Your task to perform on an android device: turn off location Image 0: 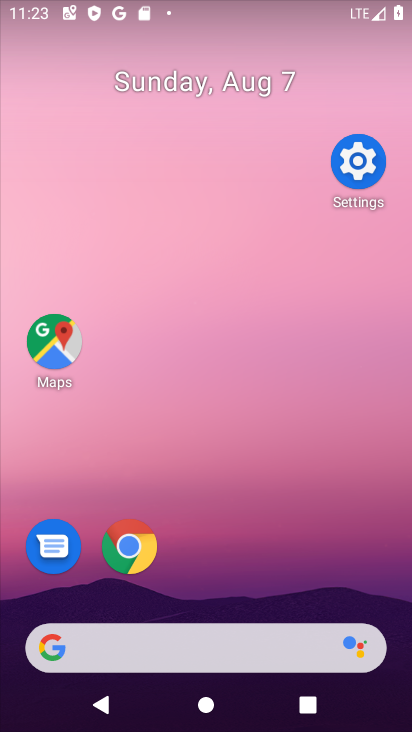
Step 0: drag from (192, 320) to (290, 316)
Your task to perform on an android device: turn off location Image 1: 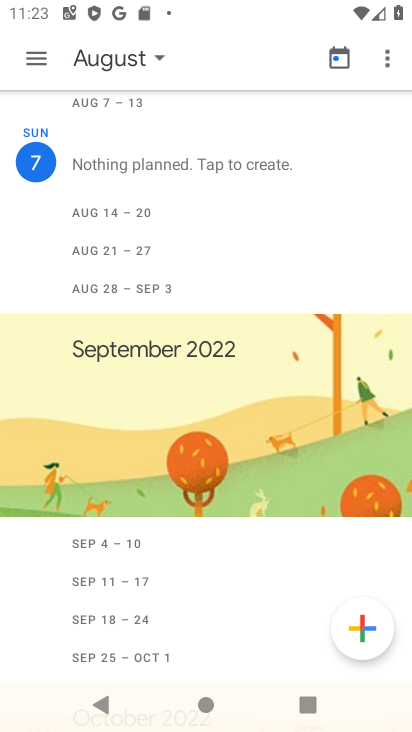
Step 1: press back button
Your task to perform on an android device: turn off location Image 2: 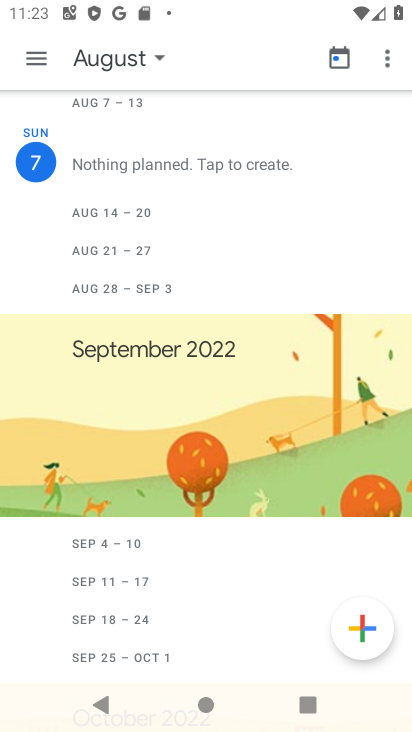
Step 2: press back button
Your task to perform on an android device: turn off location Image 3: 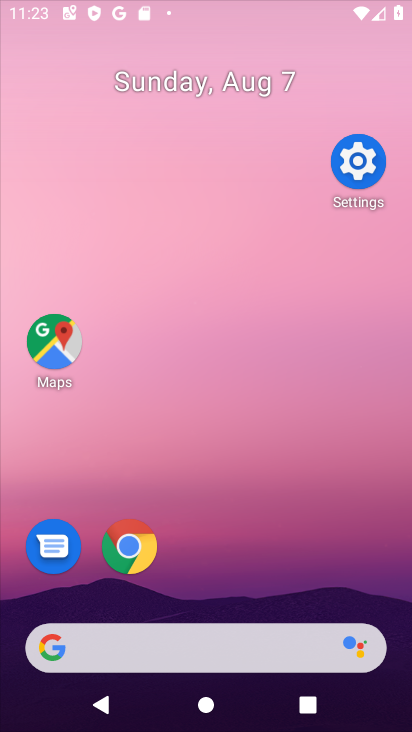
Step 3: press back button
Your task to perform on an android device: turn off location Image 4: 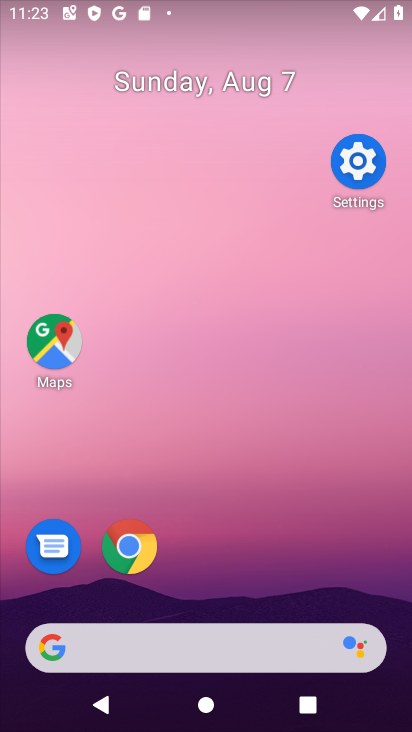
Step 4: press back button
Your task to perform on an android device: turn off location Image 5: 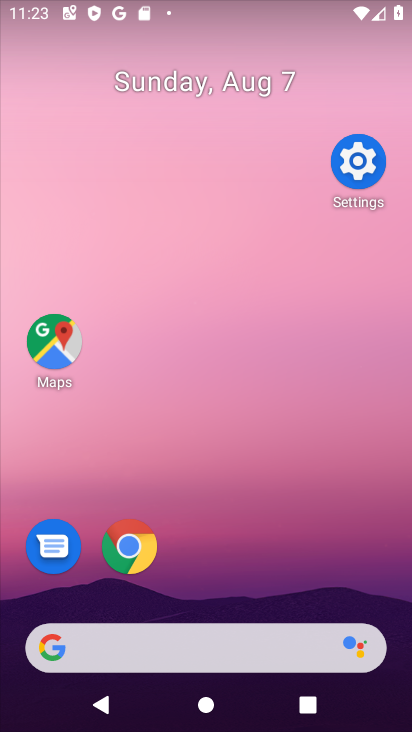
Step 5: drag from (246, 650) to (268, 194)
Your task to perform on an android device: turn off location Image 6: 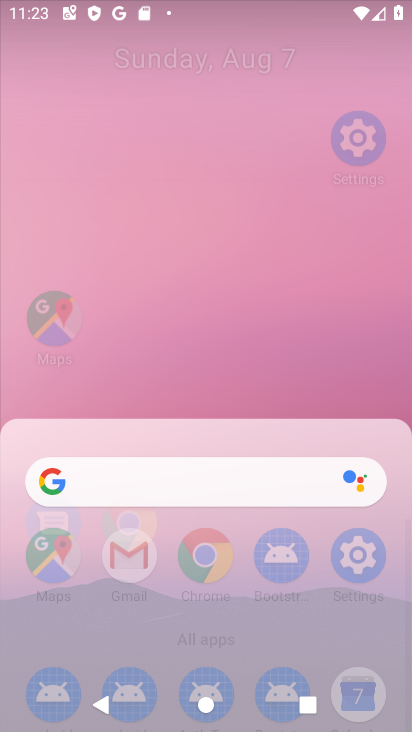
Step 6: drag from (259, 571) to (240, 334)
Your task to perform on an android device: turn off location Image 7: 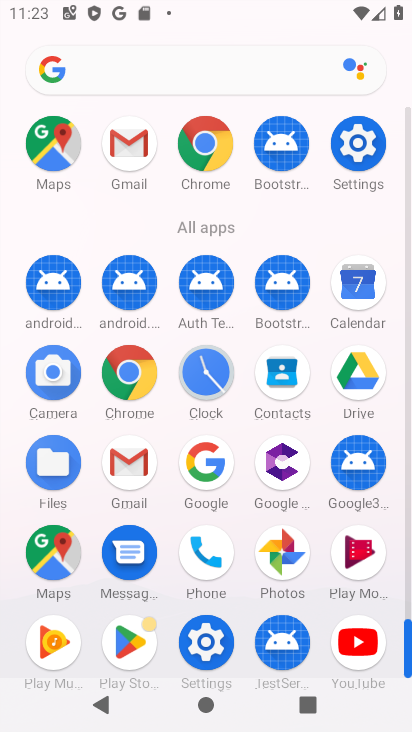
Step 7: click (213, 637)
Your task to perform on an android device: turn off location Image 8: 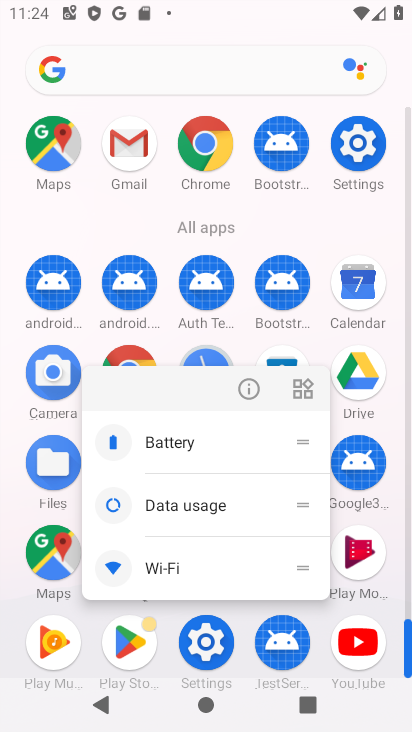
Step 8: click (354, 141)
Your task to perform on an android device: turn off location Image 9: 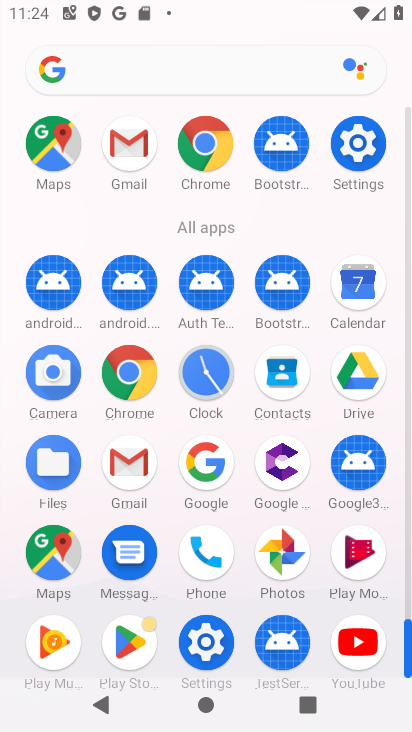
Step 9: click (360, 146)
Your task to perform on an android device: turn off location Image 10: 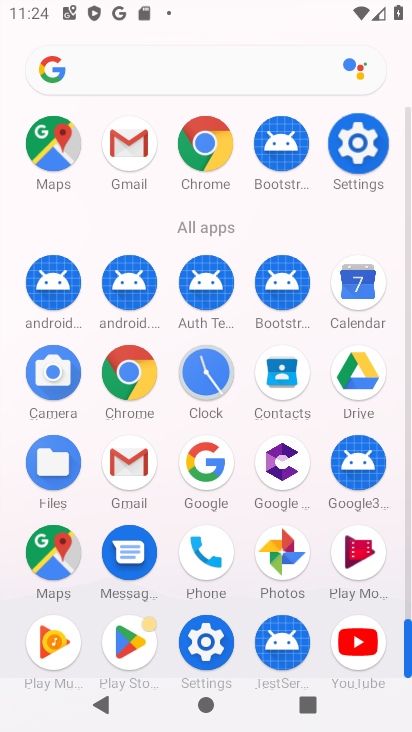
Step 10: click (376, 165)
Your task to perform on an android device: turn off location Image 11: 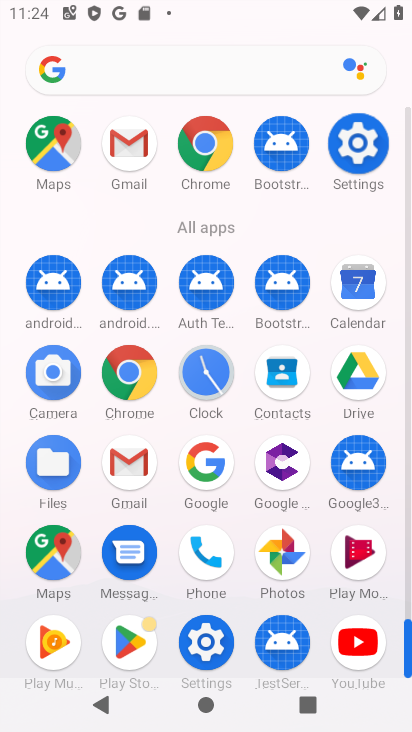
Step 11: click (394, 174)
Your task to perform on an android device: turn off location Image 12: 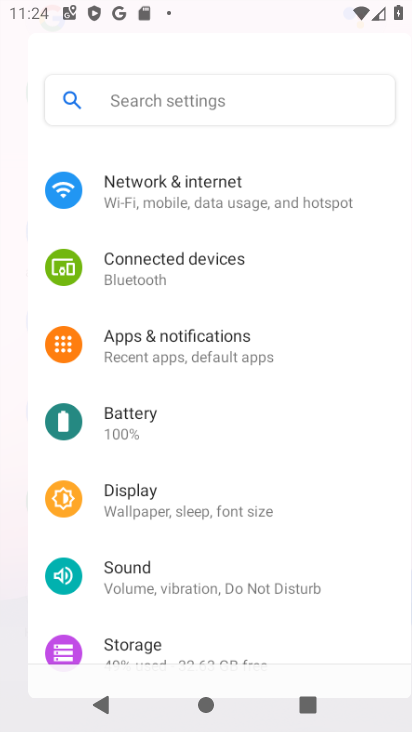
Step 12: click (399, 171)
Your task to perform on an android device: turn off location Image 13: 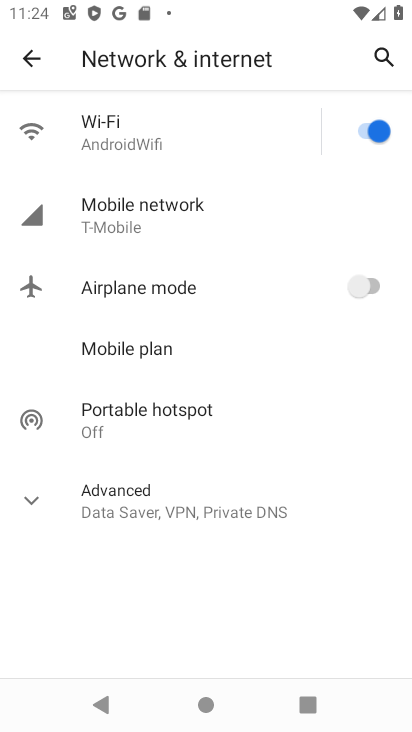
Step 13: click (48, 56)
Your task to perform on an android device: turn off location Image 14: 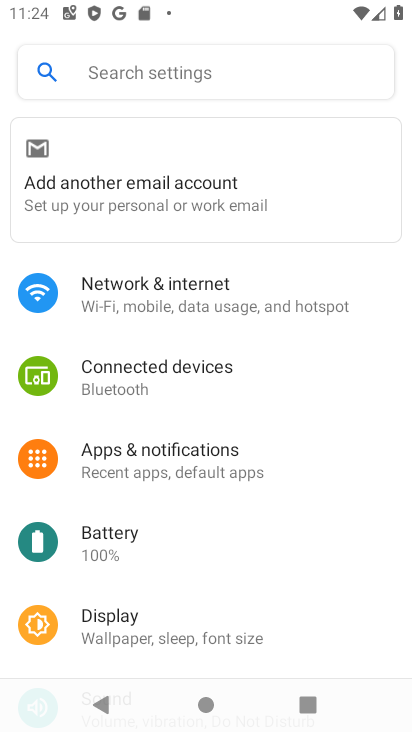
Step 14: drag from (249, 545) to (181, 179)
Your task to perform on an android device: turn off location Image 15: 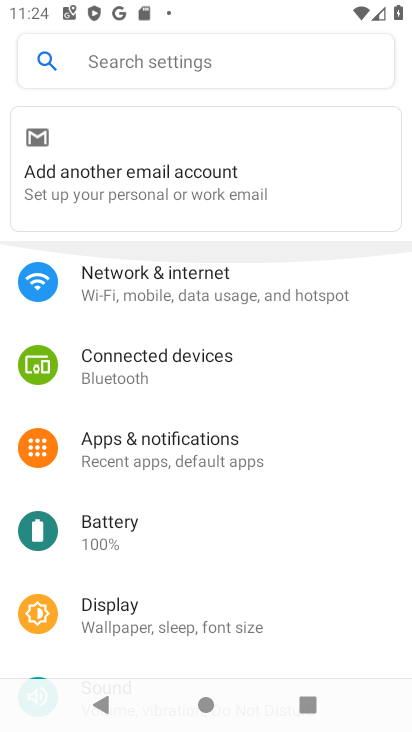
Step 15: drag from (184, 532) to (181, 340)
Your task to perform on an android device: turn off location Image 16: 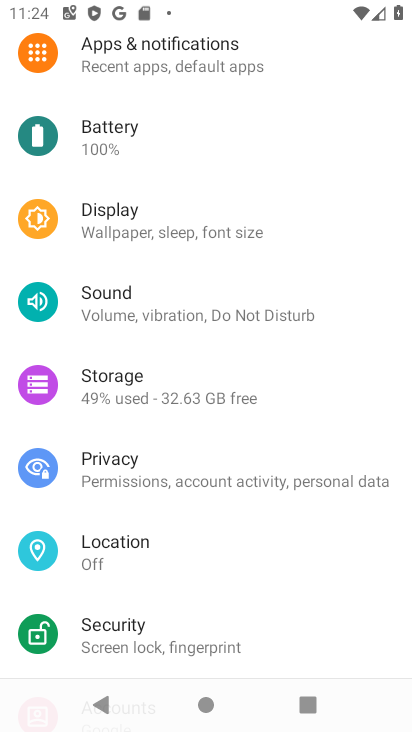
Step 16: drag from (206, 506) to (204, 340)
Your task to perform on an android device: turn off location Image 17: 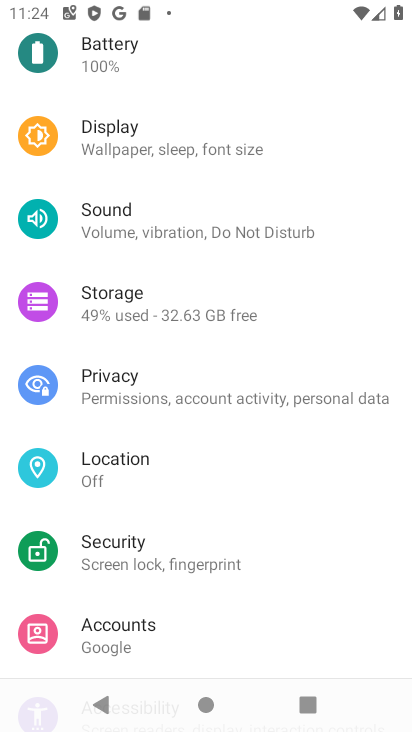
Step 17: click (125, 443)
Your task to perform on an android device: turn off location Image 18: 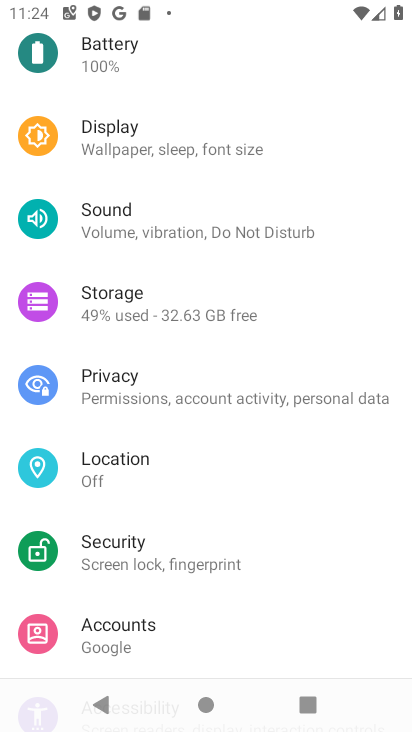
Step 18: click (126, 451)
Your task to perform on an android device: turn off location Image 19: 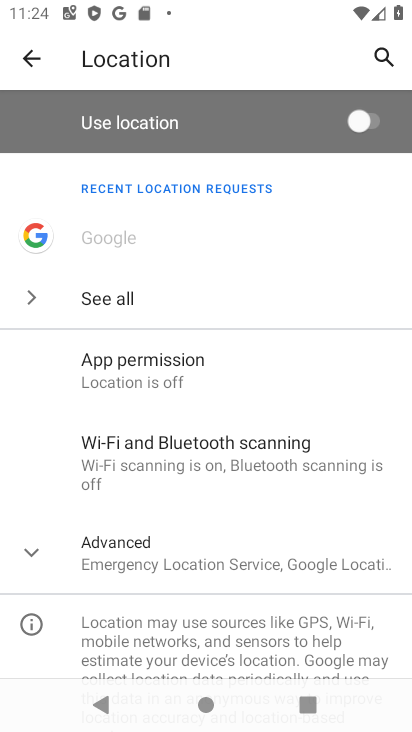
Step 19: click (359, 117)
Your task to perform on an android device: turn off location Image 20: 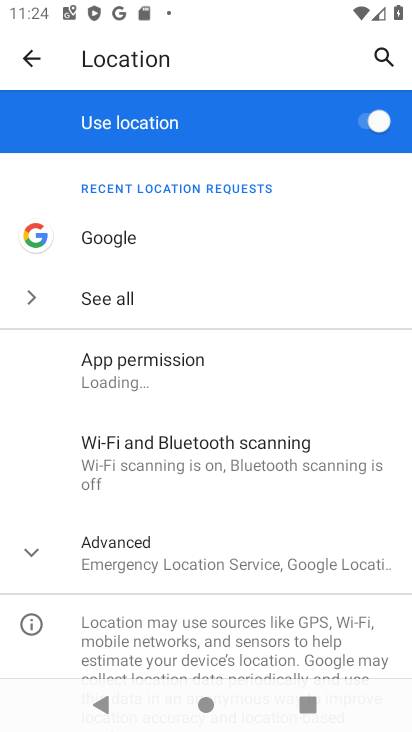
Step 20: task complete